Your task to perform on an android device: Clear the shopping cart on bestbuy. Image 0: 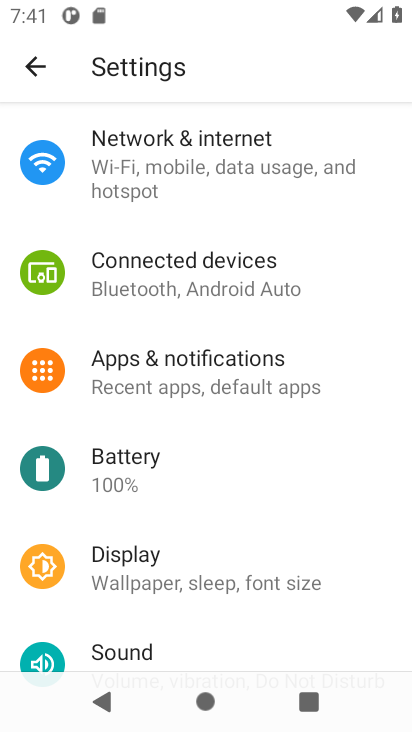
Step 0: press home button
Your task to perform on an android device: Clear the shopping cart on bestbuy. Image 1: 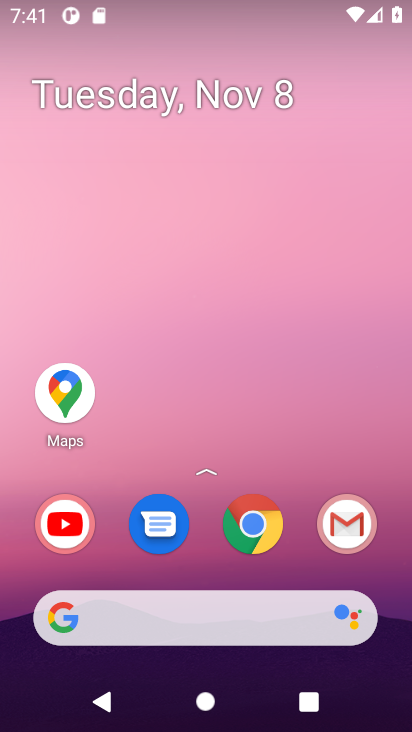
Step 1: click (236, 535)
Your task to perform on an android device: Clear the shopping cart on bestbuy. Image 2: 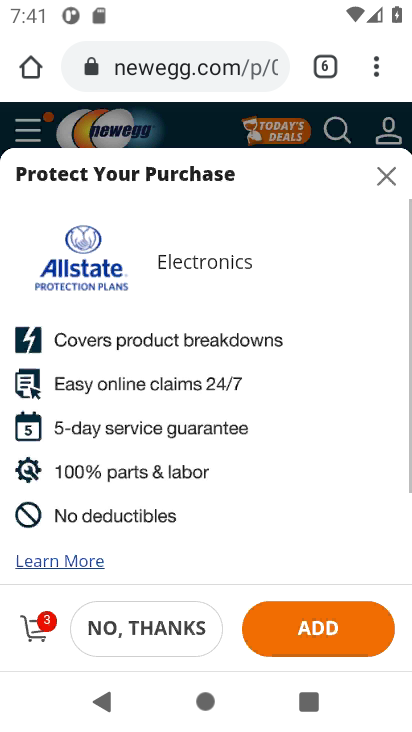
Step 2: click (206, 76)
Your task to perform on an android device: Clear the shopping cart on bestbuy. Image 3: 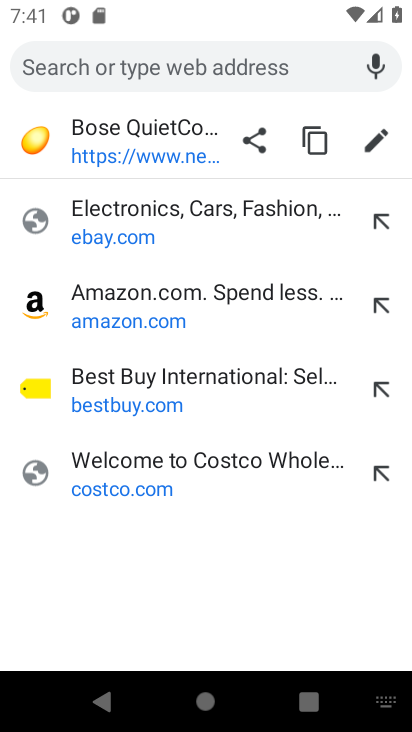
Step 3: click (106, 405)
Your task to perform on an android device: Clear the shopping cart on bestbuy. Image 4: 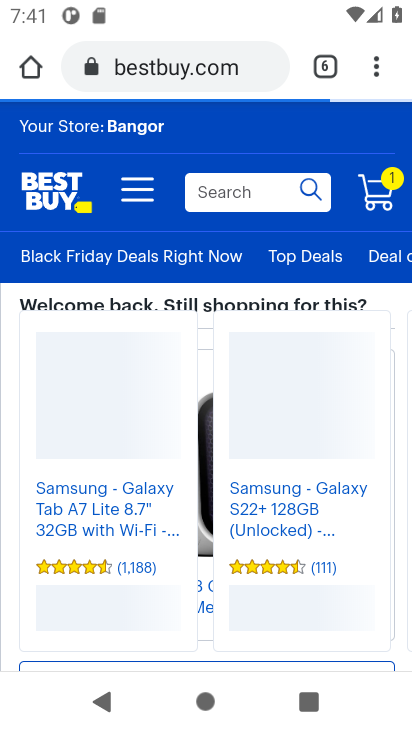
Step 4: click (372, 195)
Your task to perform on an android device: Clear the shopping cart on bestbuy. Image 5: 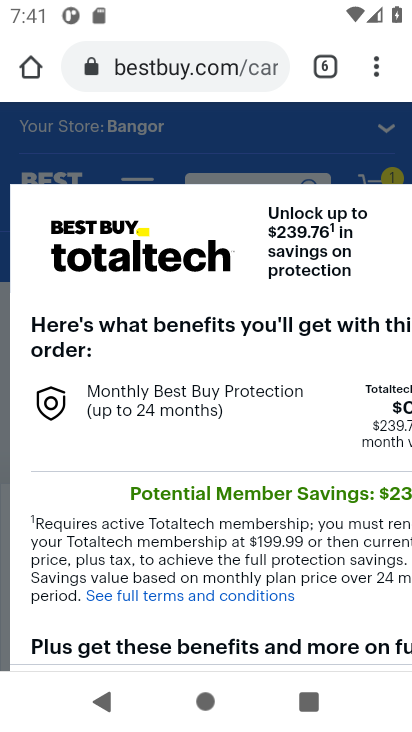
Step 5: drag from (237, 583) to (242, 300)
Your task to perform on an android device: Clear the shopping cart on bestbuy. Image 6: 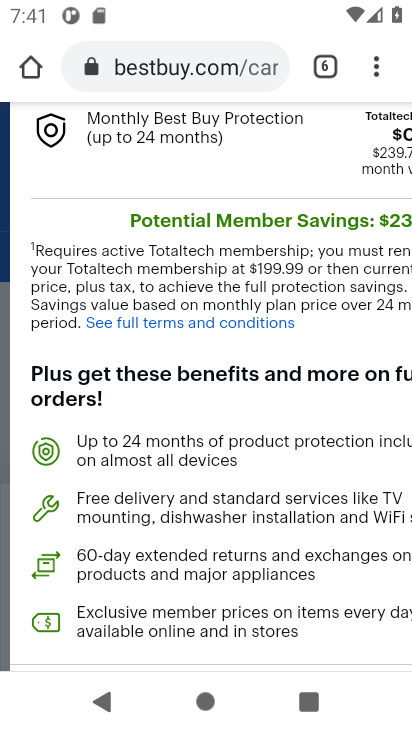
Step 6: drag from (215, 592) to (226, 222)
Your task to perform on an android device: Clear the shopping cart on bestbuy. Image 7: 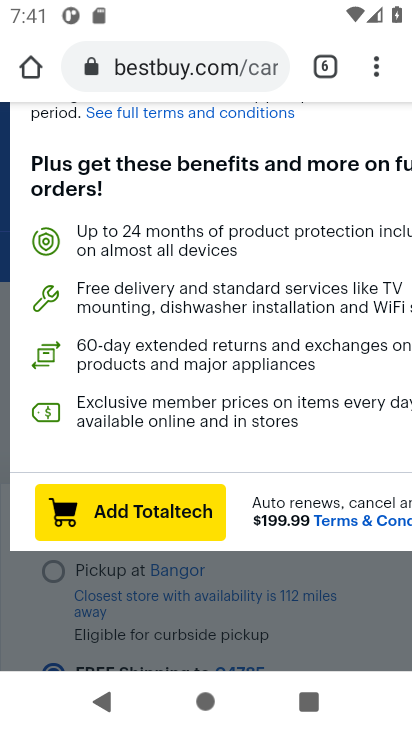
Step 7: click (265, 569)
Your task to perform on an android device: Clear the shopping cart on bestbuy. Image 8: 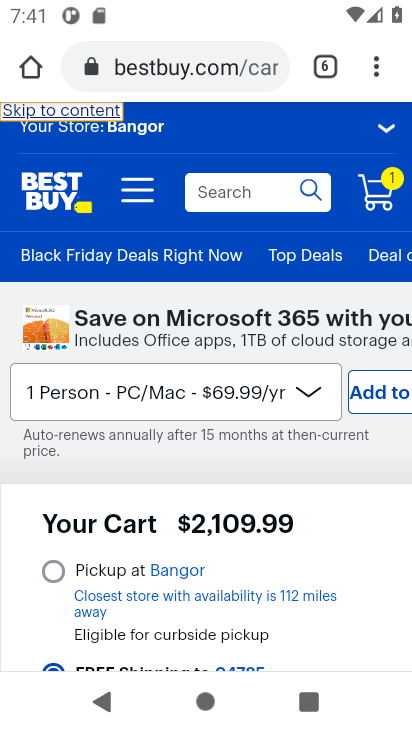
Step 8: drag from (274, 552) to (267, 295)
Your task to perform on an android device: Clear the shopping cart on bestbuy. Image 9: 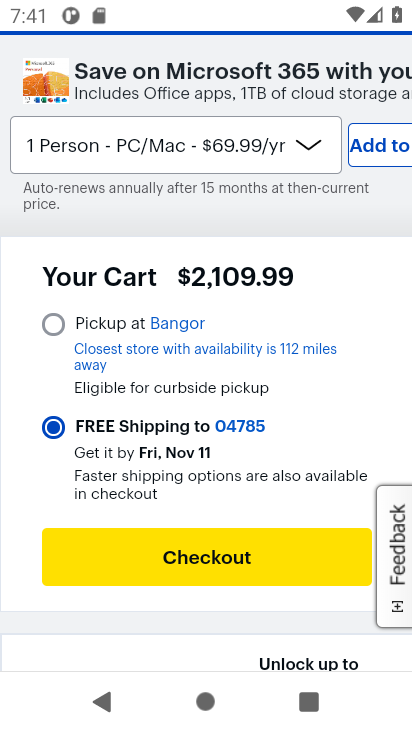
Step 9: drag from (223, 480) to (251, 241)
Your task to perform on an android device: Clear the shopping cart on bestbuy. Image 10: 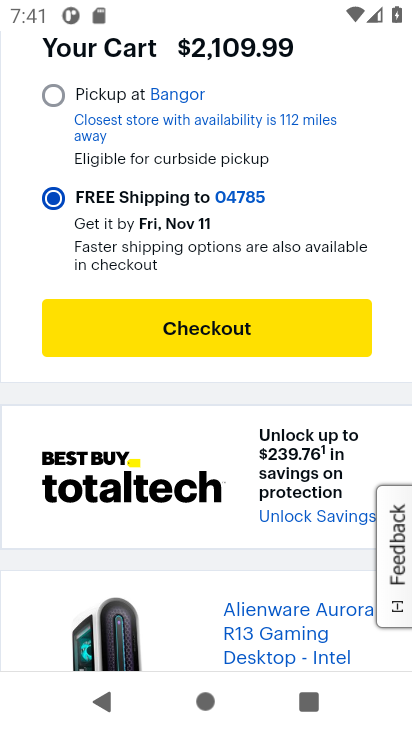
Step 10: drag from (187, 514) to (210, 269)
Your task to perform on an android device: Clear the shopping cart on bestbuy. Image 11: 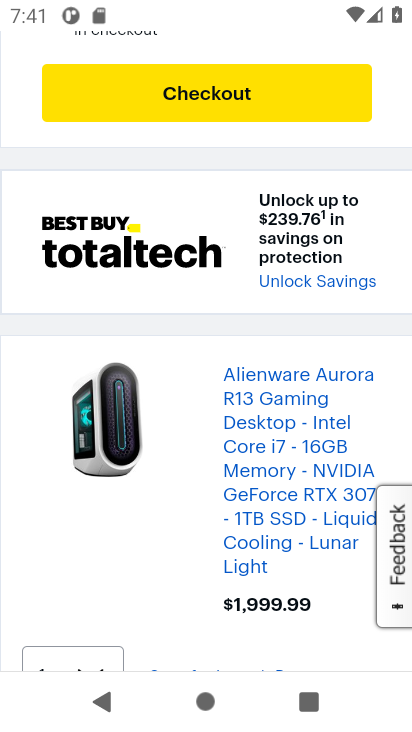
Step 11: drag from (197, 601) to (209, 321)
Your task to perform on an android device: Clear the shopping cart on bestbuy. Image 12: 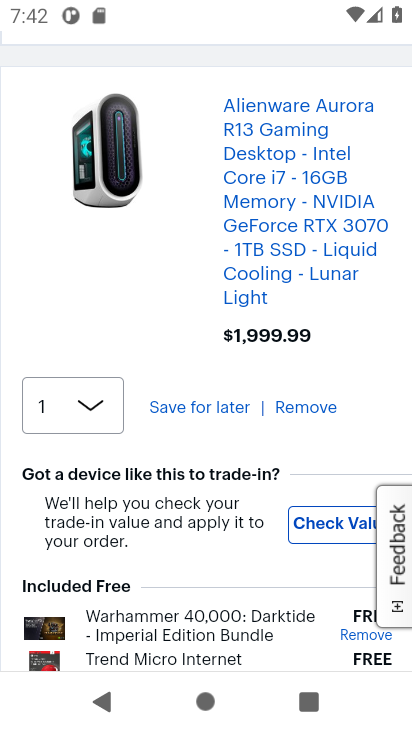
Step 12: click (294, 412)
Your task to perform on an android device: Clear the shopping cart on bestbuy. Image 13: 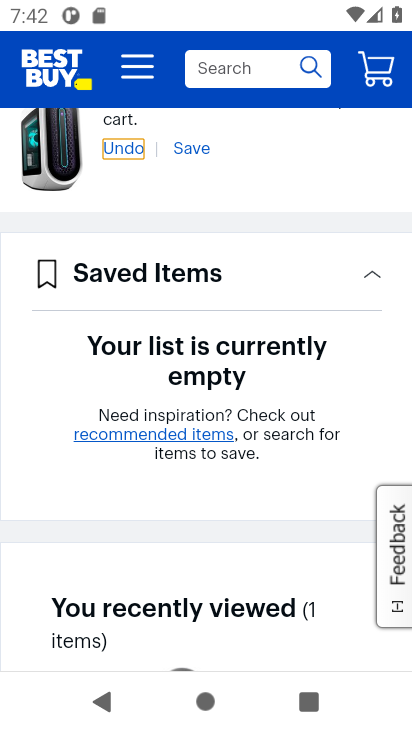
Step 13: task complete